Your task to perform on an android device: set the timer Image 0: 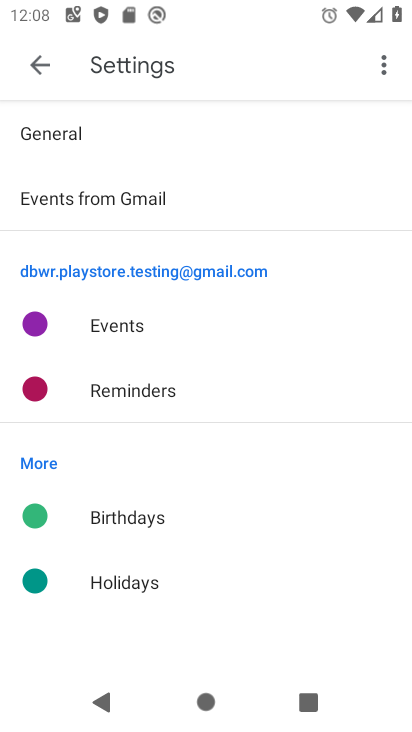
Step 0: press home button
Your task to perform on an android device: set the timer Image 1: 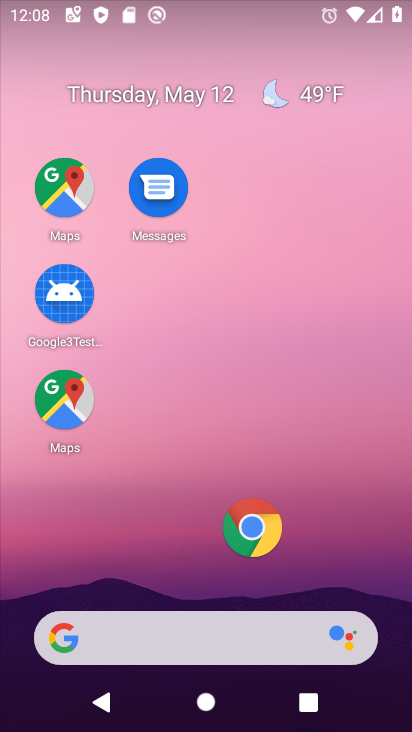
Step 1: drag from (216, 591) to (187, 228)
Your task to perform on an android device: set the timer Image 2: 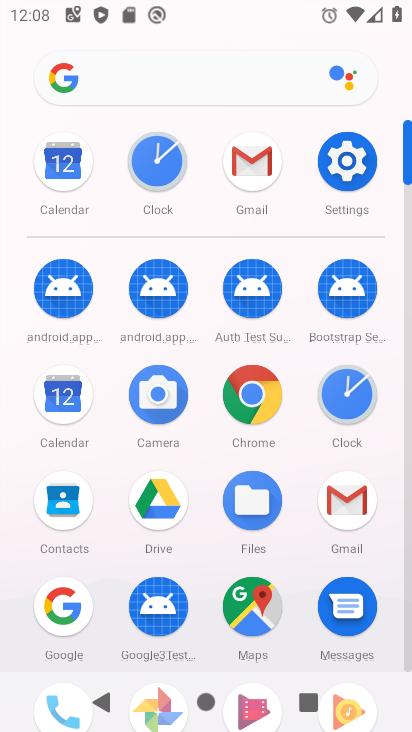
Step 2: click (341, 387)
Your task to perform on an android device: set the timer Image 3: 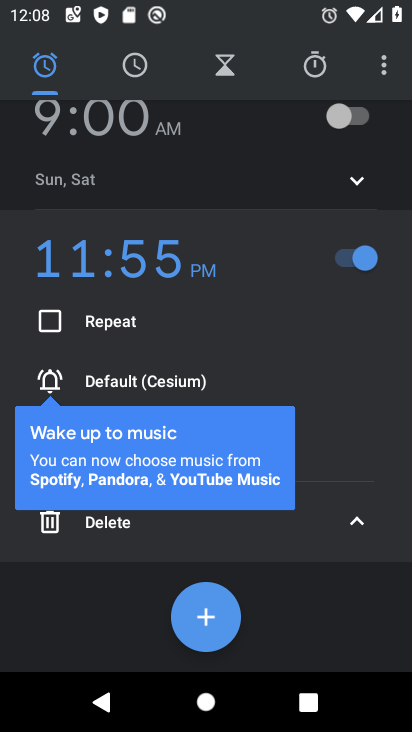
Step 3: click (300, 64)
Your task to perform on an android device: set the timer Image 4: 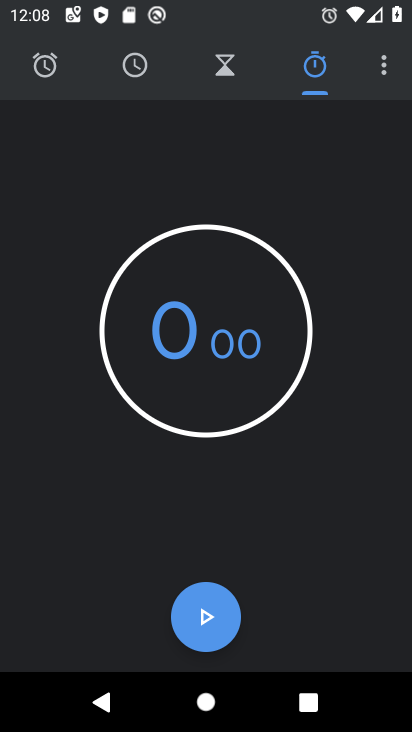
Step 4: click (225, 68)
Your task to perform on an android device: set the timer Image 5: 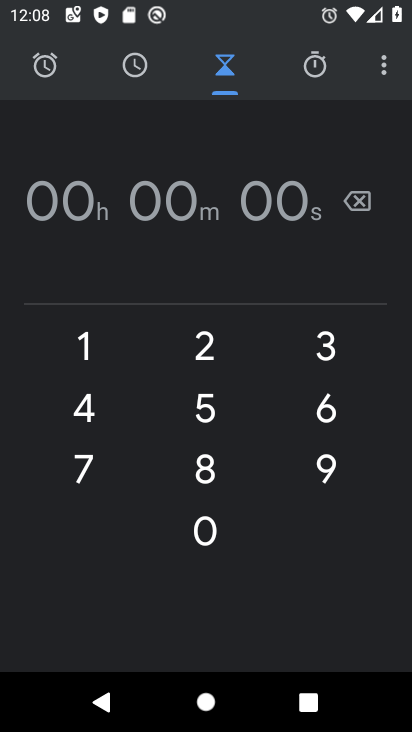
Step 5: click (206, 314)
Your task to perform on an android device: set the timer Image 6: 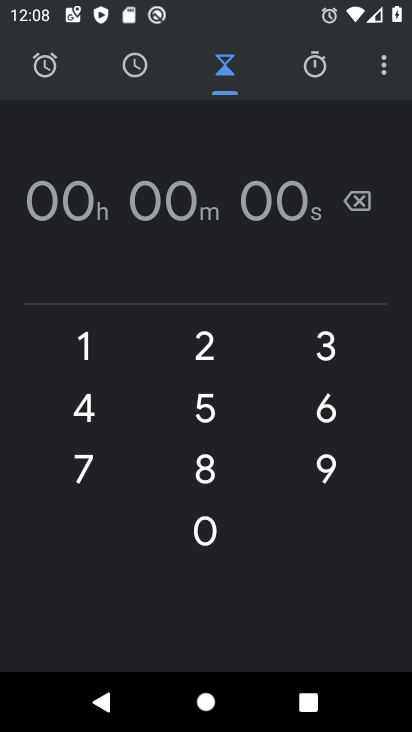
Step 6: click (202, 393)
Your task to perform on an android device: set the timer Image 7: 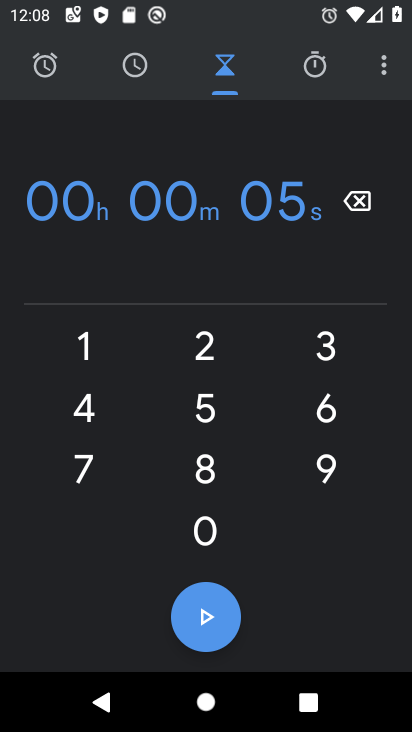
Step 7: click (202, 393)
Your task to perform on an android device: set the timer Image 8: 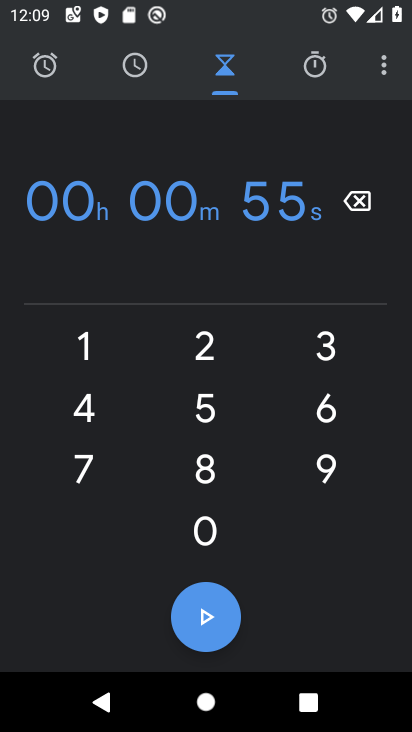
Step 8: task complete